Your task to perform on an android device: allow cookies in the chrome app Image 0: 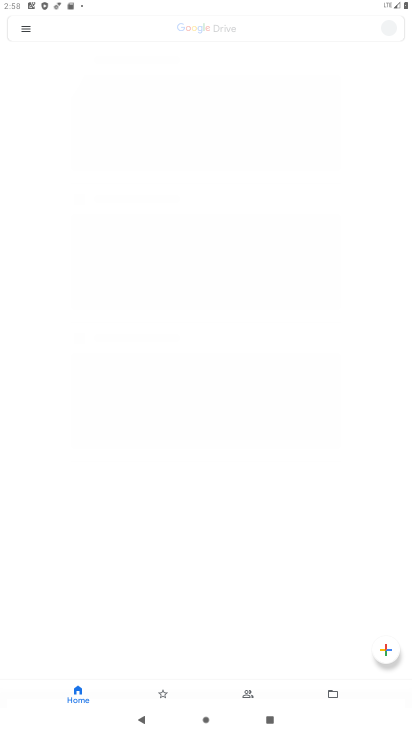
Step 0: press home button
Your task to perform on an android device: allow cookies in the chrome app Image 1: 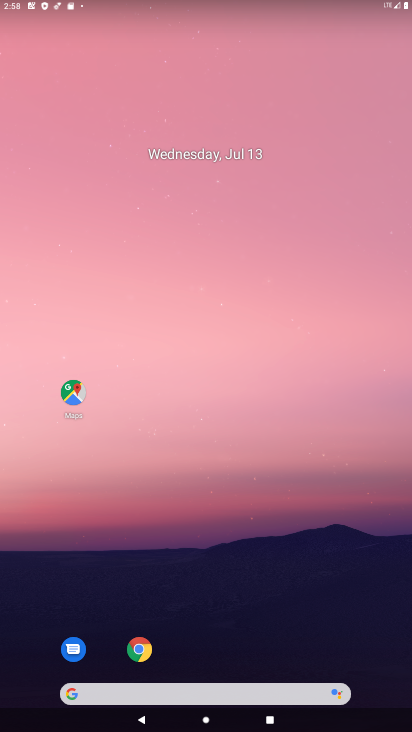
Step 1: click (143, 649)
Your task to perform on an android device: allow cookies in the chrome app Image 2: 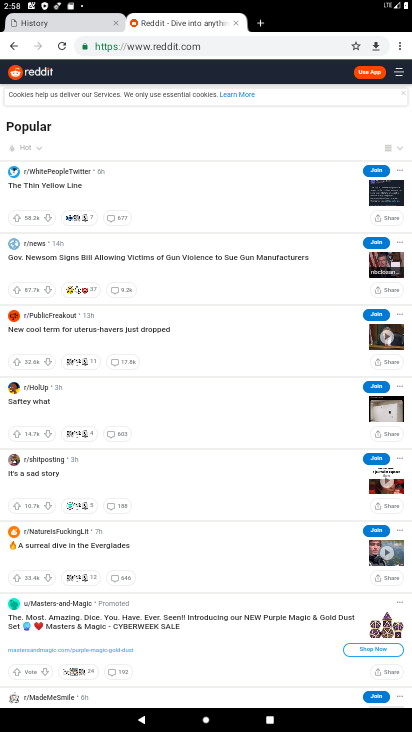
Step 2: click (400, 40)
Your task to perform on an android device: allow cookies in the chrome app Image 3: 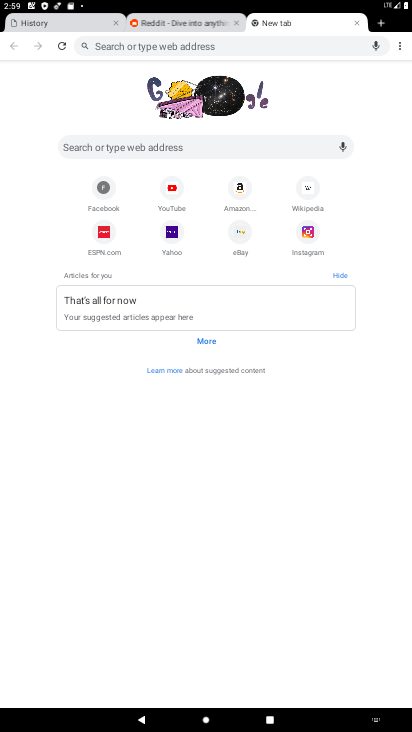
Step 3: click (394, 47)
Your task to perform on an android device: allow cookies in the chrome app Image 4: 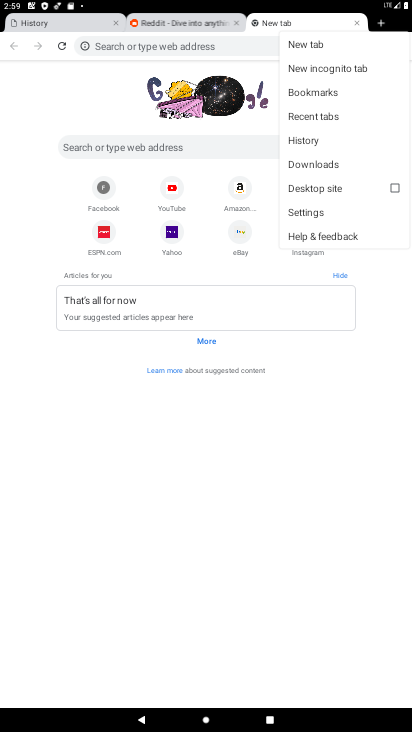
Step 4: click (327, 211)
Your task to perform on an android device: allow cookies in the chrome app Image 5: 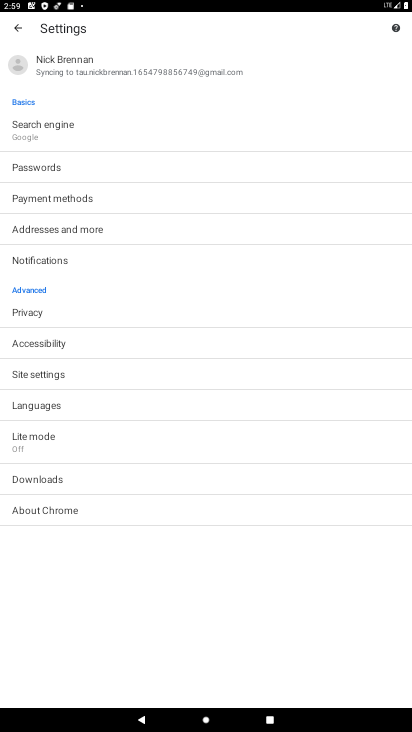
Step 5: click (72, 373)
Your task to perform on an android device: allow cookies in the chrome app Image 6: 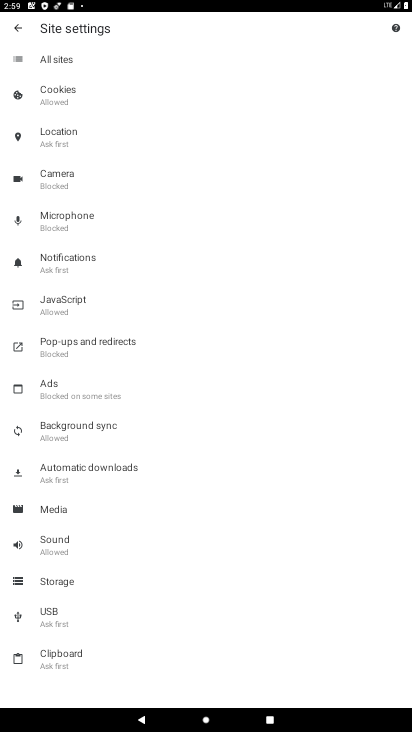
Step 6: click (84, 94)
Your task to perform on an android device: allow cookies in the chrome app Image 7: 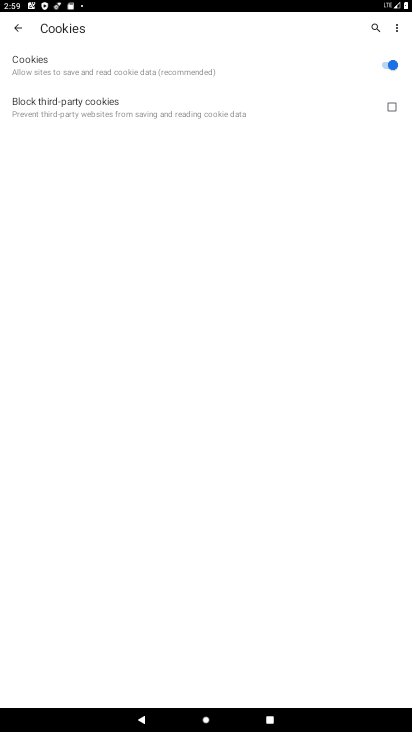
Step 7: task complete